Your task to perform on an android device: turn on airplane mode Image 0: 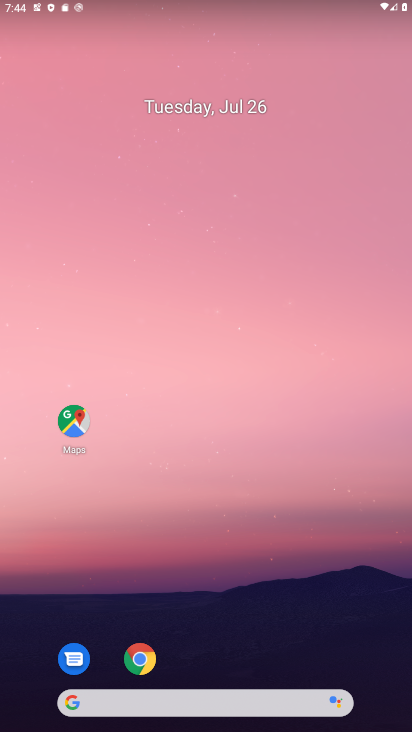
Step 0: drag from (192, 667) to (36, 166)
Your task to perform on an android device: turn on airplane mode Image 1: 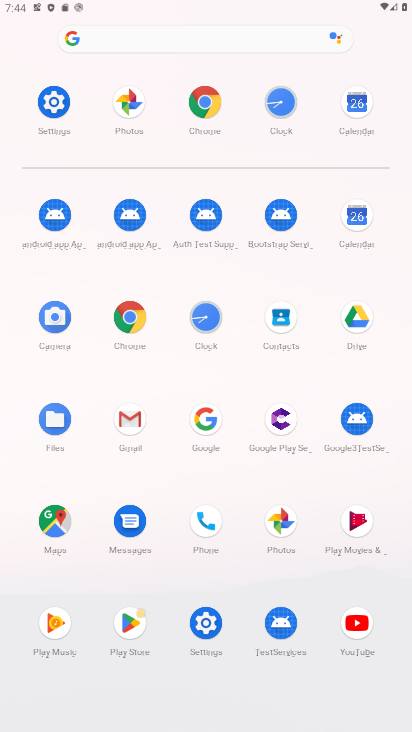
Step 1: click (52, 110)
Your task to perform on an android device: turn on airplane mode Image 2: 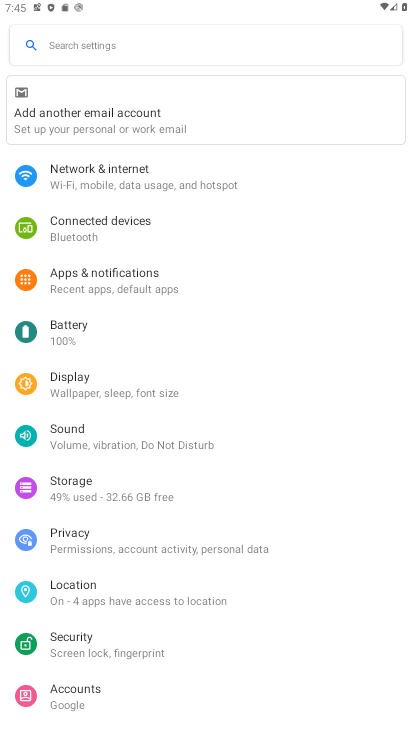
Step 2: click (147, 165)
Your task to perform on an android device: turn on airplane mode Image 3: 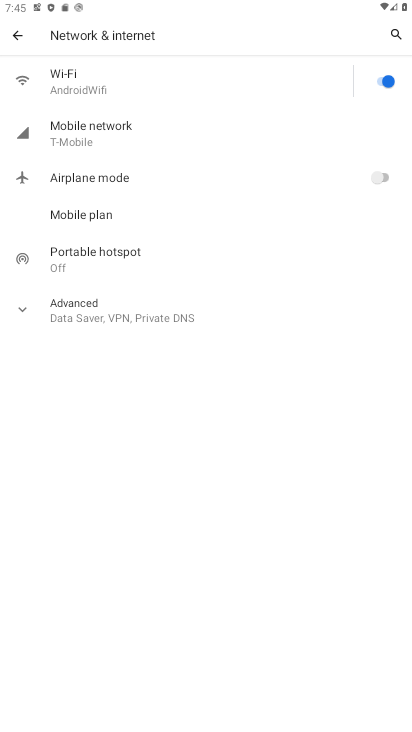
Step 3: click (388, 181)
Your task to perform on an android device: turn on airplane mode Image 4: 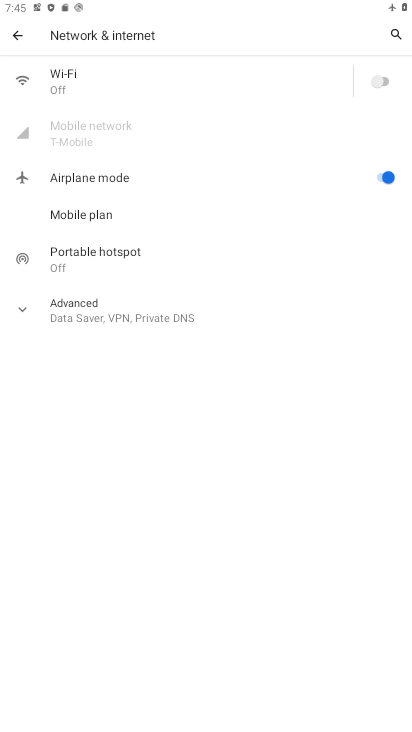
Step 4: task complete